Your task to perform on an android device: delete a single message in the gmail app Image 0: 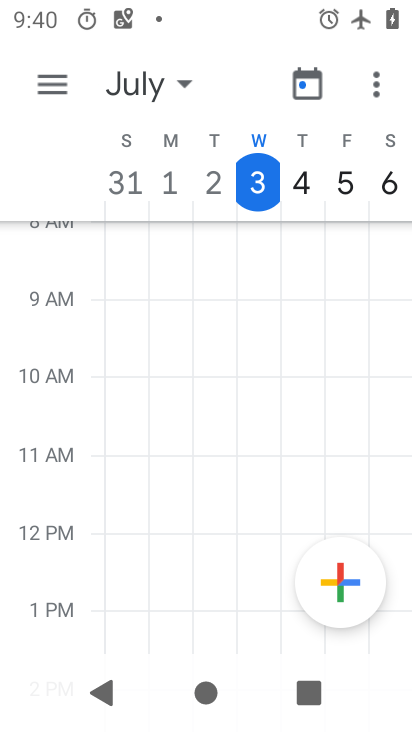
Step 0: press home button
Your task to perform on an android device: delete a single message in the gmail app Image 1: 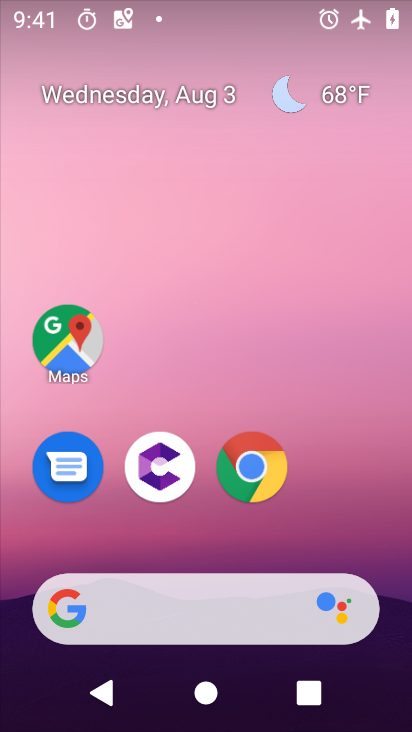
Step 1: drag from (367, 506) to (297, 85)
Your task to perform on an android device: delete a single message in the gmail app Image 2: 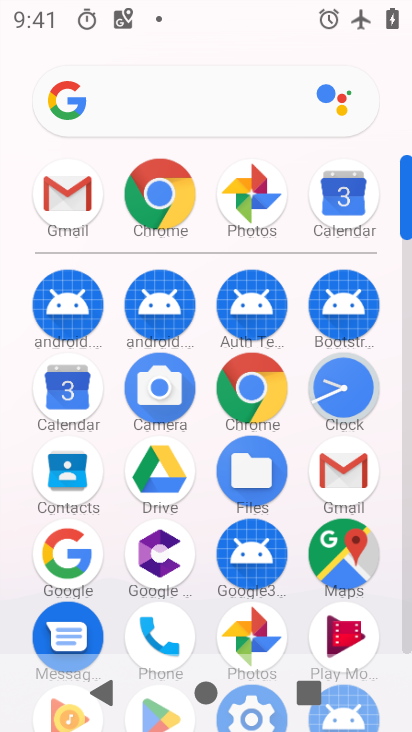
Step 2: click (343, 467)
Your task to perform on an android device: delete a single message in the gmail app Image 3: 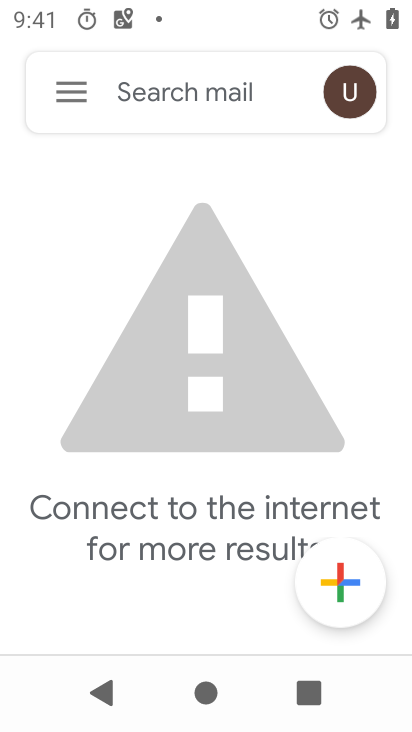
Step 3: click (60, 79)
Your task to perform on an android device: delete a single message in the gmail app Image 4: 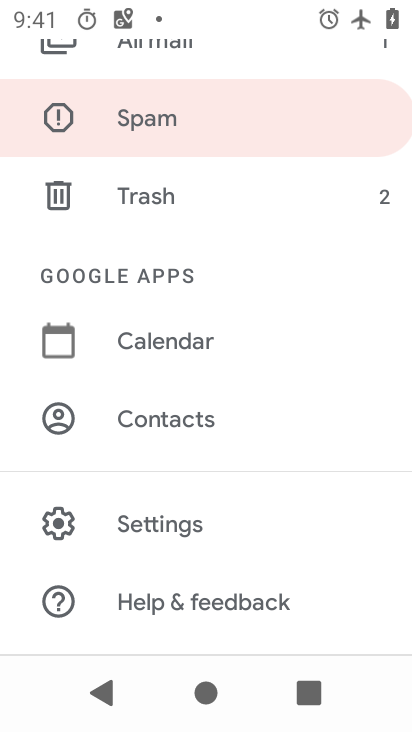
Step 4: click (166, 49)
Your task to perform on an android device: delete a single message in the gmail app Image 5: 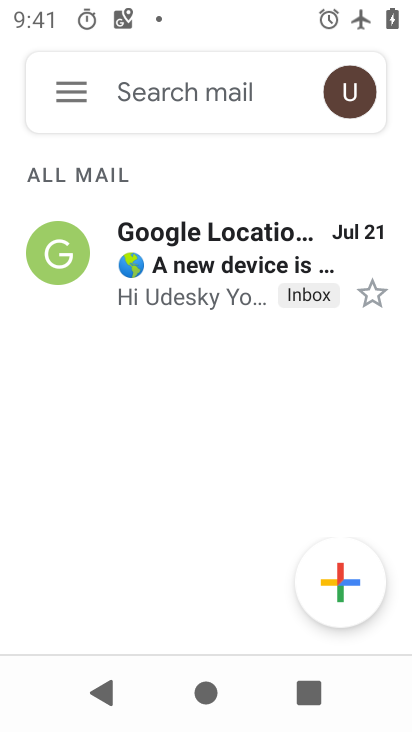
Step 5: click (243, 237)
Your task to perform on an android device: delete a single message in the gmail app Image 6: 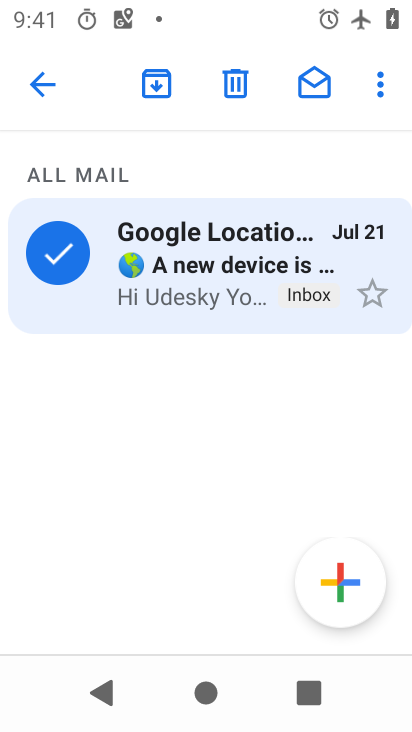
Step 6: click (238, 81)
Your task to perform on an android device: delete a single message in the gmail app Image 7: 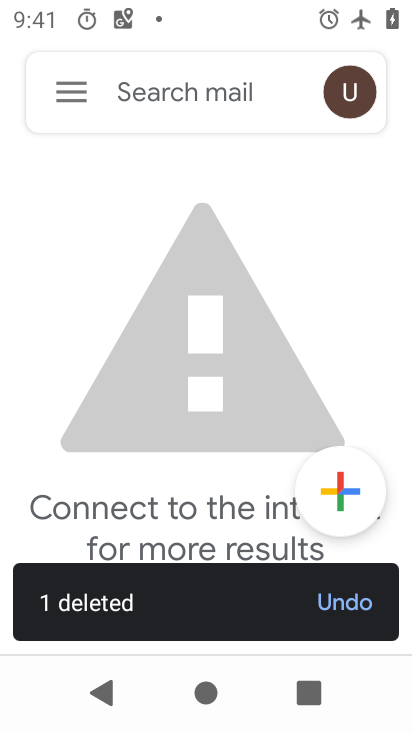
Step 7: task complete